Your task to perform on an android device: Go to Wikipedia Image 0: 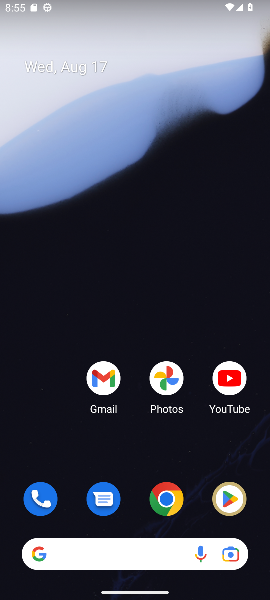
Step 0: click (177, 488)
Your task to perform on an android device: Go to Wikipedia Image 1: 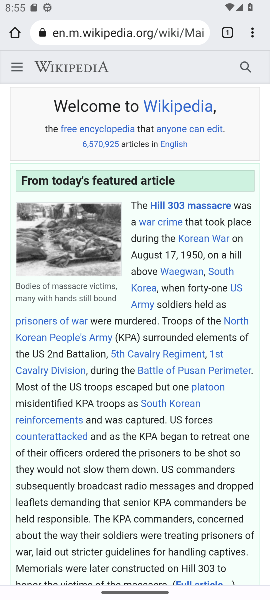
Step 1: task complete